Your task to perform on an android device: Open settings Image 0: 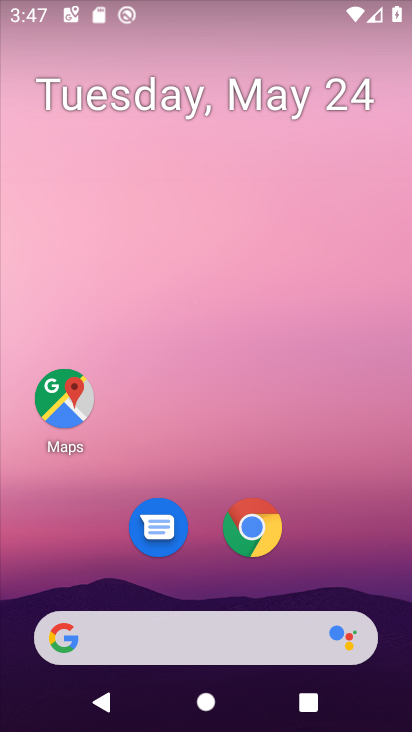
Step 0: drag from (350, 599) to (391, 727)
Your task to perform on an android device: Open settings Image 1: 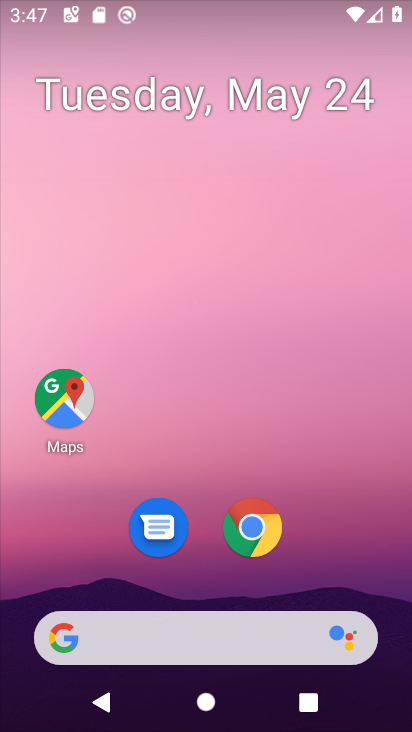
Step 1: drag from (328, 591) to (304, 1)
Your task to perform on an android device: Open settings Image 2: 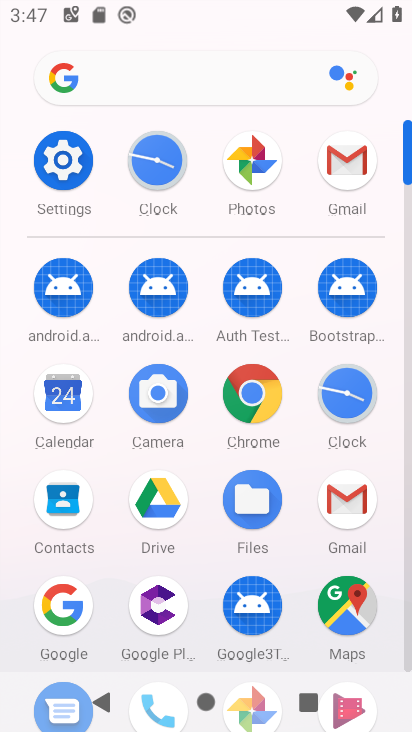
Step 2: click (52, 157)
Your task to perform on an android device: Open settings Image 3: 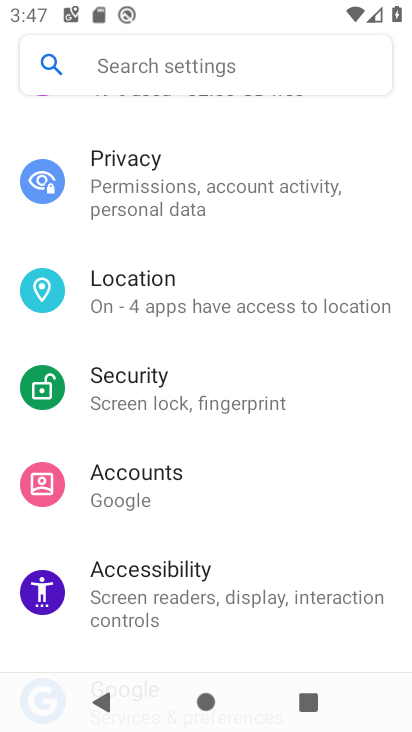
Step 3: task complete